Your task to perform on an android device: turn off priority inbox in the gmail app Image 0: 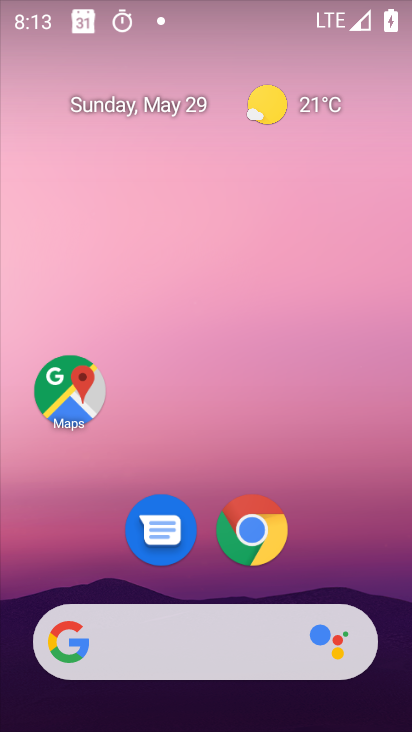
Step 0: drag from (273, 659) to (279, 198)
Your task to perform on an android device: turn off priority inbox in the gmail app Image 1: 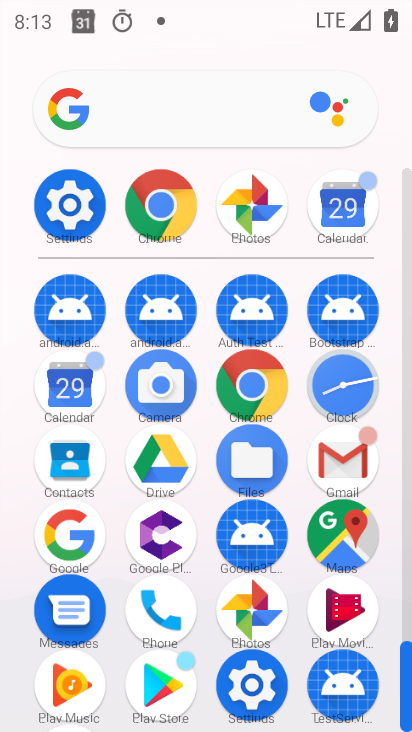
Step 1: click (342, 451)
Your task to perform on an android device: turn off priority inbox in the gmail app Image 2: 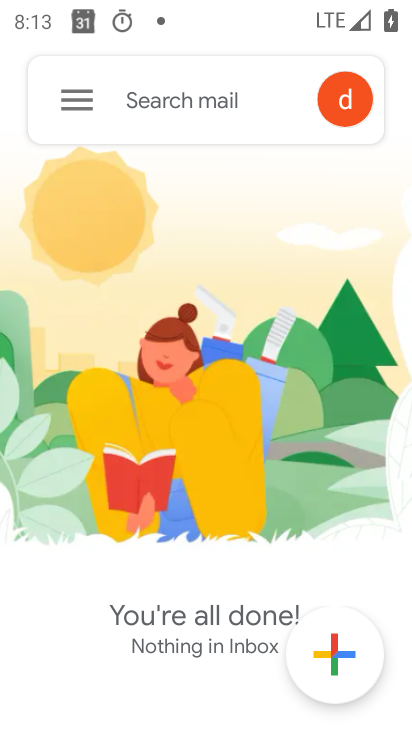
Step 2: click (61, 108)
Your task to perform on an android device: turn off priority inbox in the gmail app Image 3: 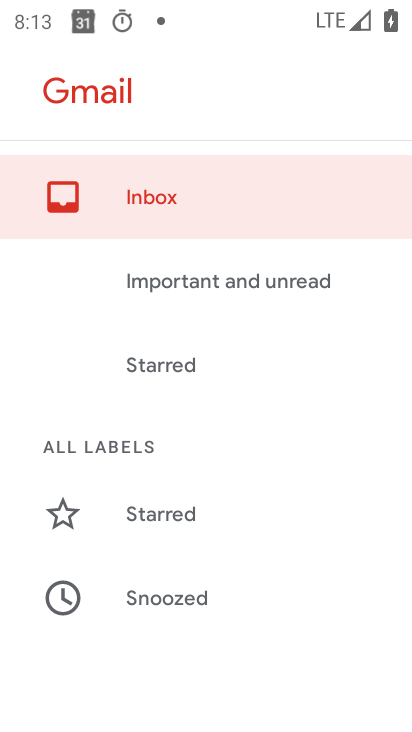
Step 3: drag from (188, 488) to (227, 119)
Your task to perform on an android device: turn off priority inbox in the gmail app Image 4: 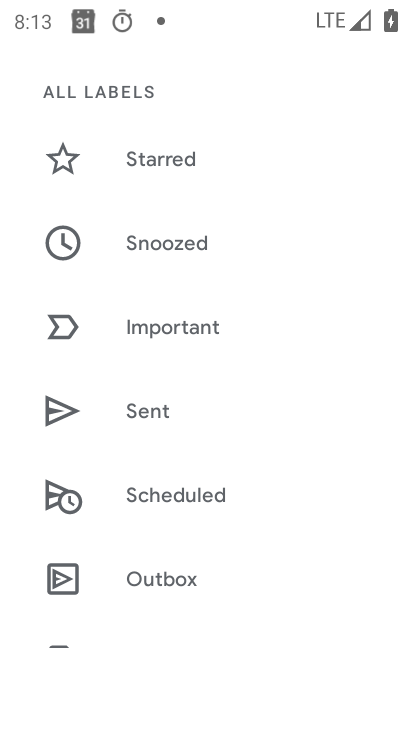
Step 4: drag from (207, 550) to (259, 209)
Your task to perform on an android device: turn off priority inbox in the gmail app Image 5: 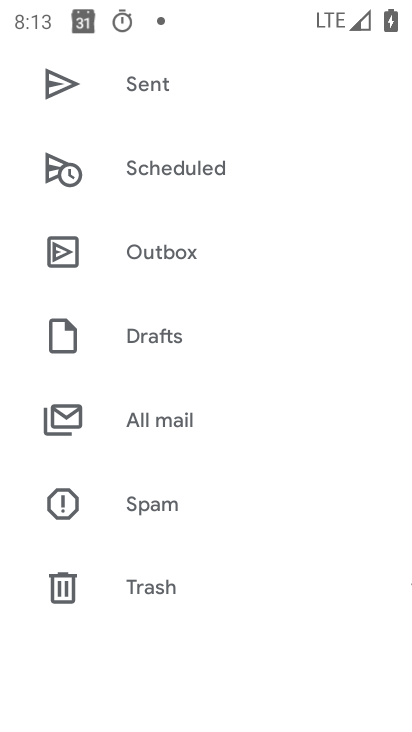
Step 5: drag from (192, 585) to (223, 297)
Your task to perform on an android device: turn off priority inbox in the gmail app Image 6: 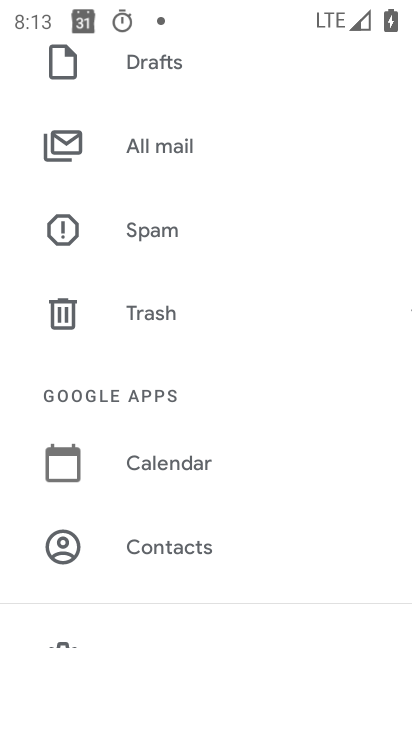
Step 6: drag from (173, 595) to (203, 376)
Your task to perform on an android device: turn off priority inbox in the gmail app Image 7: 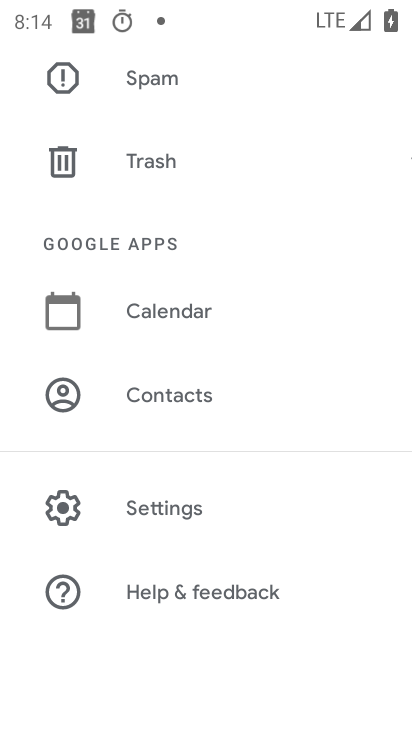
Step 7: click (171, 523)
Your task to perform on an android device: turn off priority inbox in the gmail app Image 8: 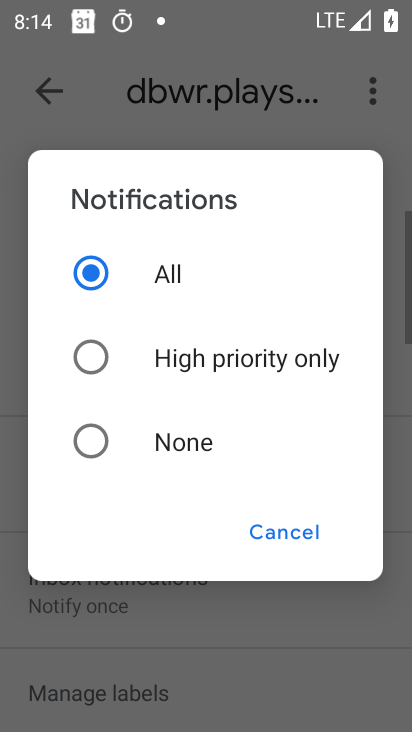
Step 8: click (295, 541)
Your task to perform on an android device: turn off priority inbox in the gmail app Image 9: 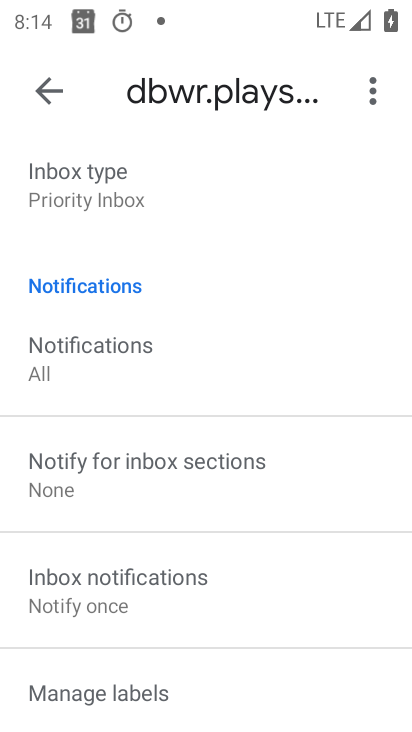
Step 9: click (119, 197)
Your task to perform on an android device: turn off priority inbox in the gmail app Image 10: 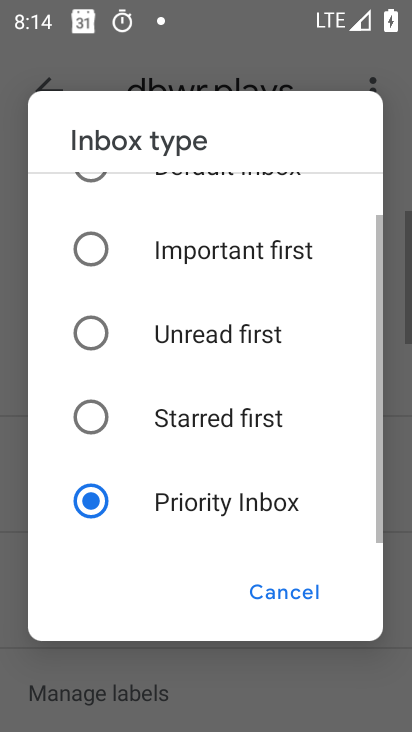
Step 10: drag from (183, 219) to (230, 243)
Your task to perform on an android device: turn off priority inbox in the gmail app Image 11: 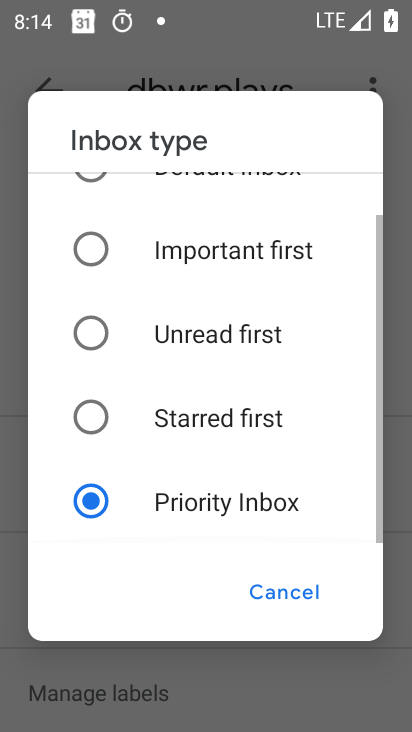
Step 11: click (162, 252)
Your task to perform on an android device: turn off priority inbox in the gmail app Image 12: 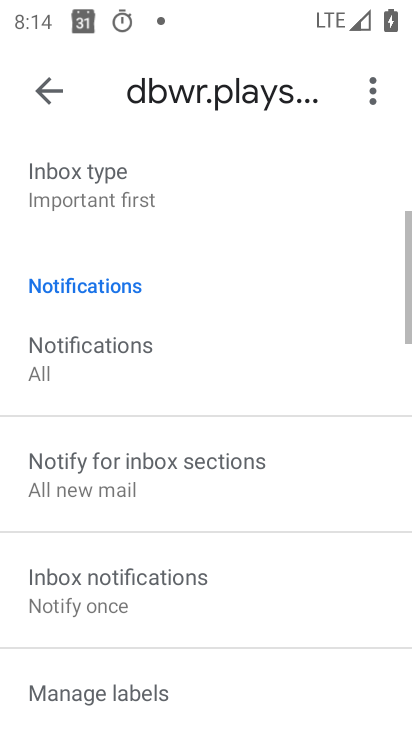
Step 12: click (113, 206)
Your task to perform on an android device: turn off priority inbox in the gmail app Image 13: 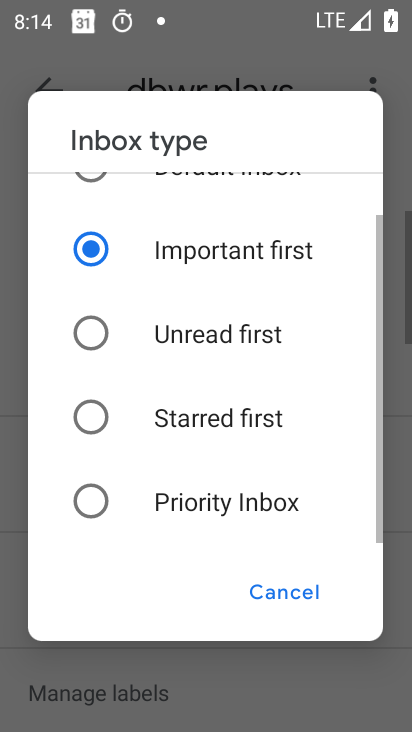
Step 13: task complete